Your task to perform on an android device: Open Chrome and go to the settings page Image 0: 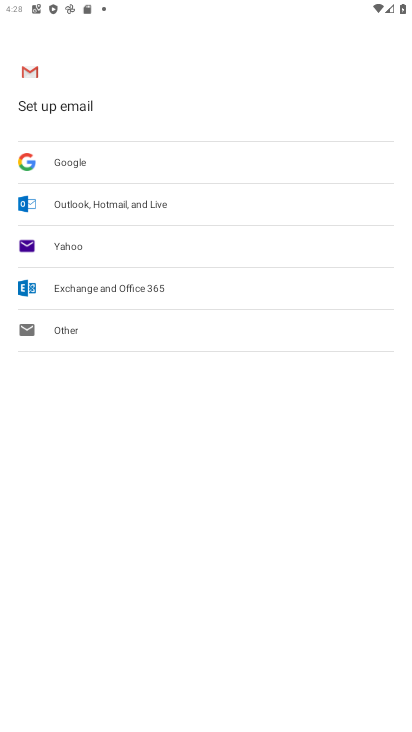
Step 0: press home button
Your task to perform on an android device: Open Chrome and go to the settings page Image 1: 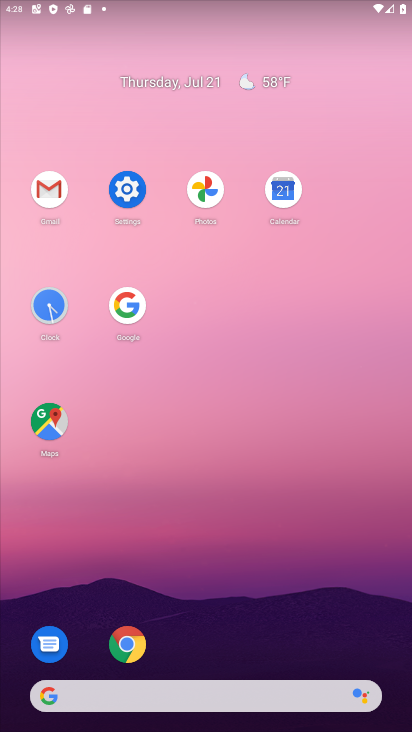
Step 1: click (126, 634)
Your task to perform on an android device: Open Chrome and go to the settings page Image 2: 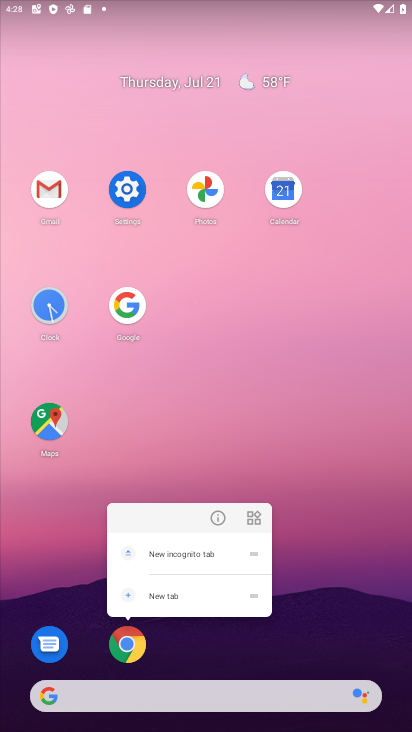
Step 2: click (140, 651)
Your task to perform on an android device: Open Chrome and go to the settings page Image 3: 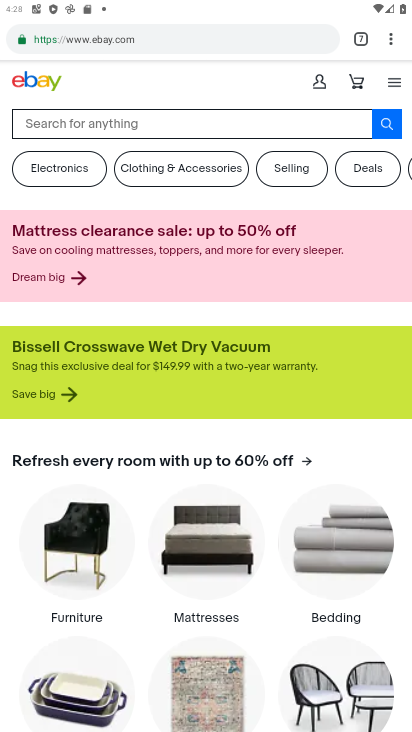
Step 3: click (395, 41)
Your task to perform on an android device: Open Chrome and go to the settings page Image 4: 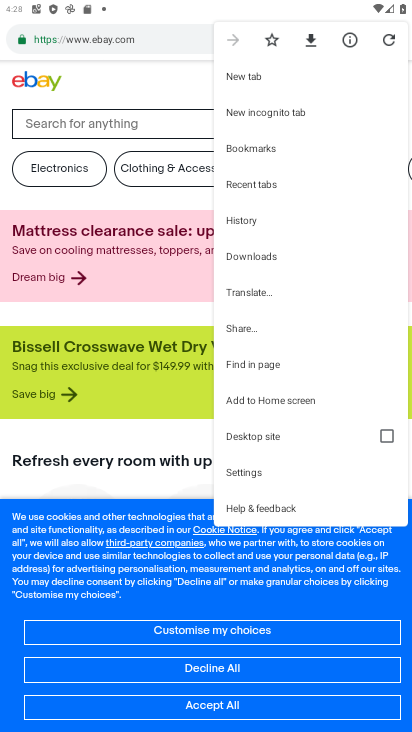
Step 4: click (270, 480)
Your task to perform on an android device: Open Chrome and go to the settings page Image 5: 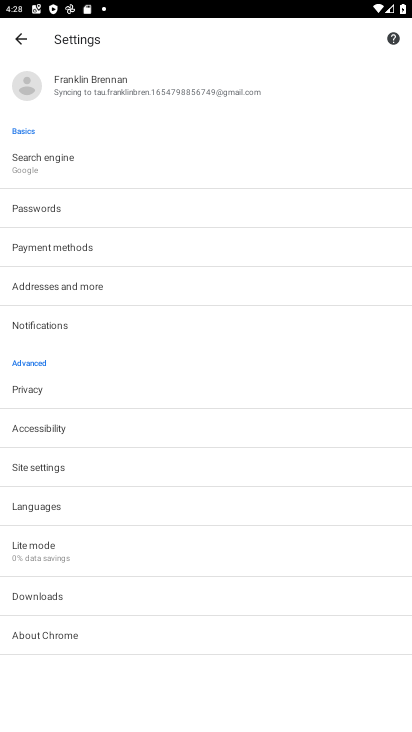
Step 5: task complete